Your task to perform on an android device: remove spam from my inbox in the gmail app Image 0: 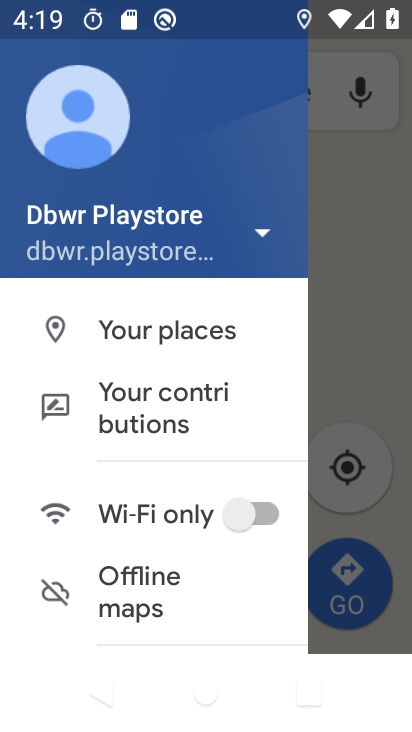
Step 0: press home button
Your task to perform on an android device: remove spam from my inbox in the gmail app Image 1: 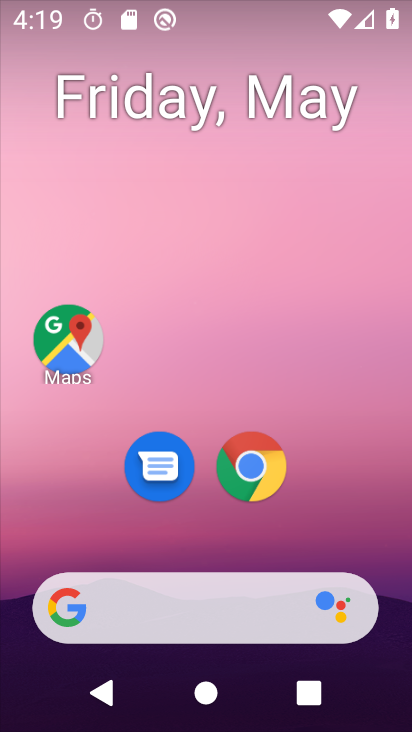
Step 1: drag from (398, 642) to (382, 221)
Your task to perform on an android device: remove spam from my inbox in the gmail app Image 2: 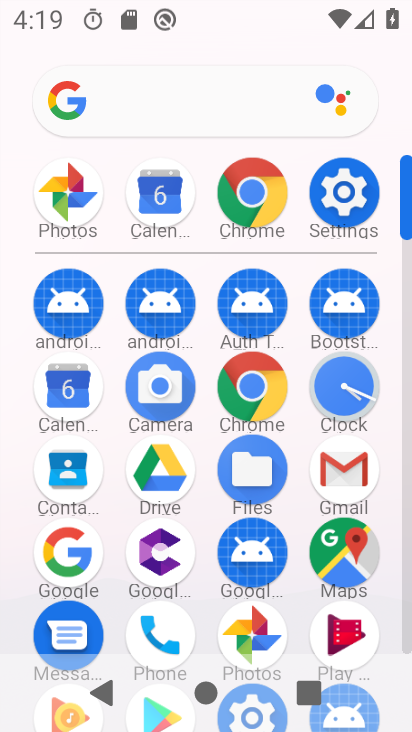
Step 2: click (339, 475)
Your task to perform on an android device: remove spam from my inbox in the gmail app Image 3: 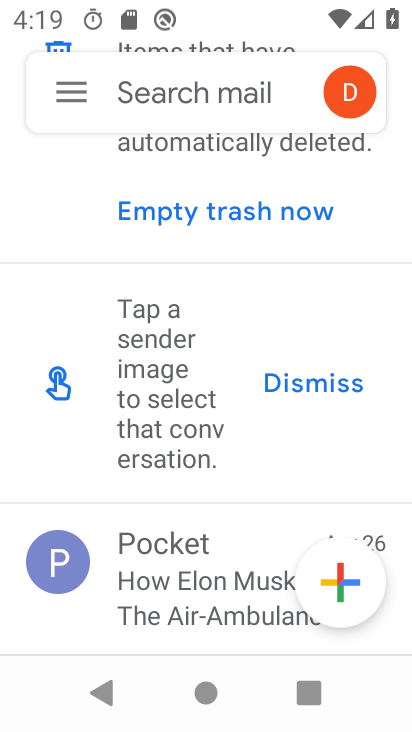
Step 3: click (75, 89)
Your task to perform on an android device: remove spam from my inbox in the gmail app Image 4: 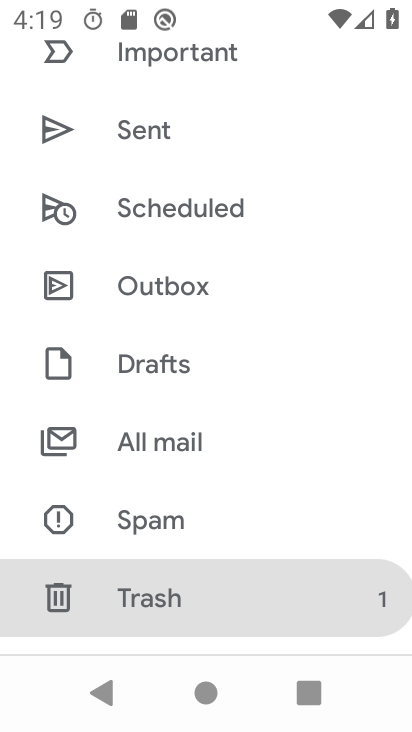
Step 4: drag from (280, 507) to (270, 220)
Your task to perform on an android device: remove spam from my inbox in the gmail app Image 5: 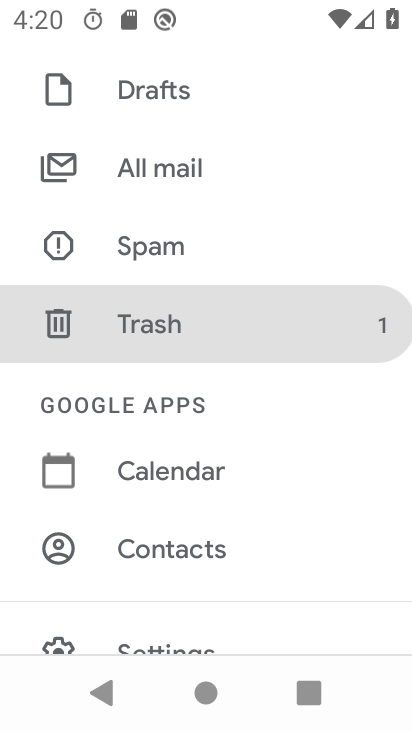
Step 5: drag from (312, 344) to (315, 279)
Your task to perform on an android device: remove spam from my inbox in the gmail app Image 6: 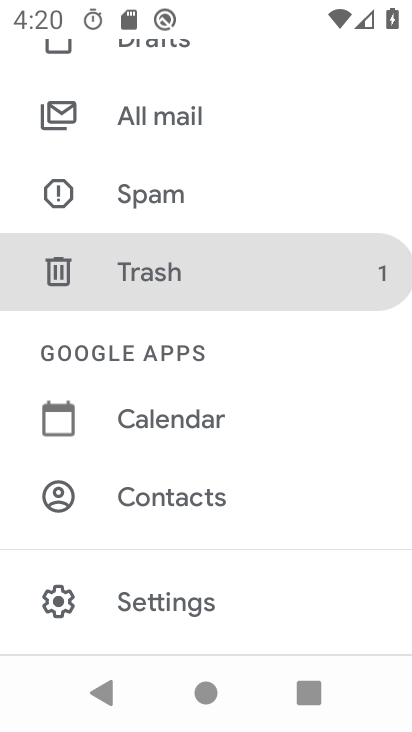
Step 6: click (127, 188)
Your task to perform on an android device: remove spam from my inbox in the gmail app Image 7: 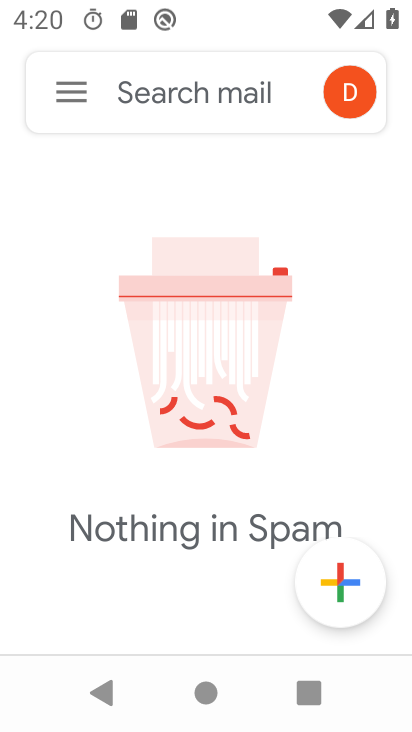
Step 7: task complete